Your task to perform on an android device: turn off priority inbox in the gmail app Image 0: 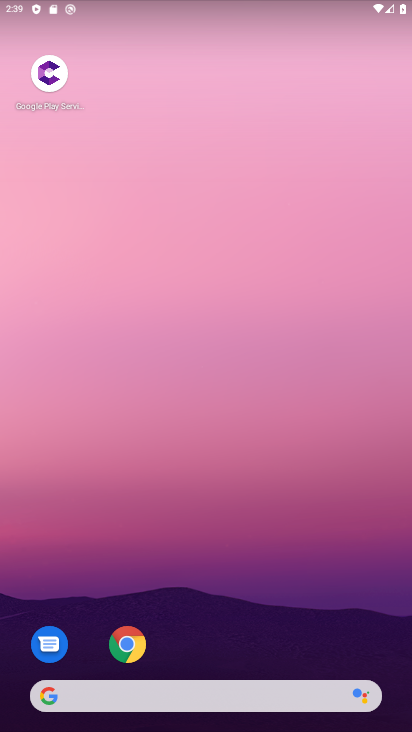
Step 0: drag from (248, 480) to (290, 153)
Your task to perform on an android device: turn off priority inbox in the gmail app Image 1: 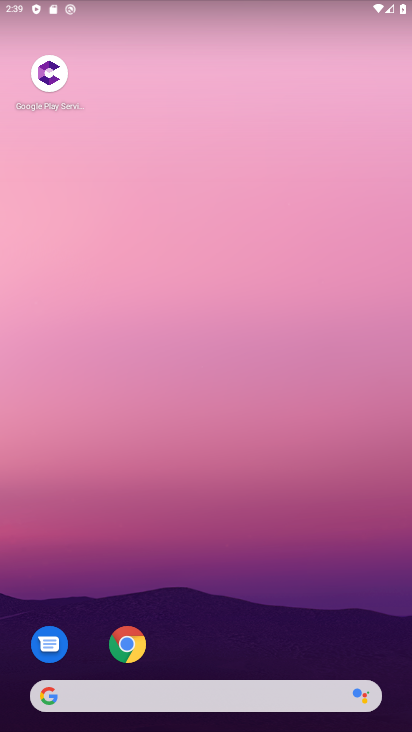
Step 1: drag from (204, 628) to (329, 40)
Your task to perform on an android device: turn off priority inbox in the gmail app Image 2: 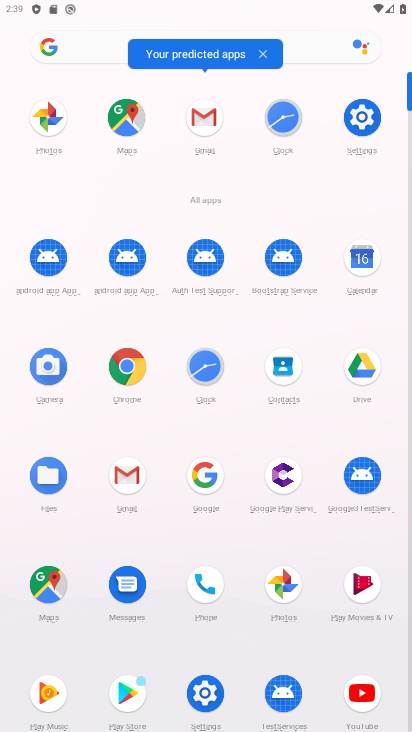
Step 2: drag from (158, 618) to (252, 393)
Your task to perform on an android device: turn off priority inbox in the gmail app Image 3: 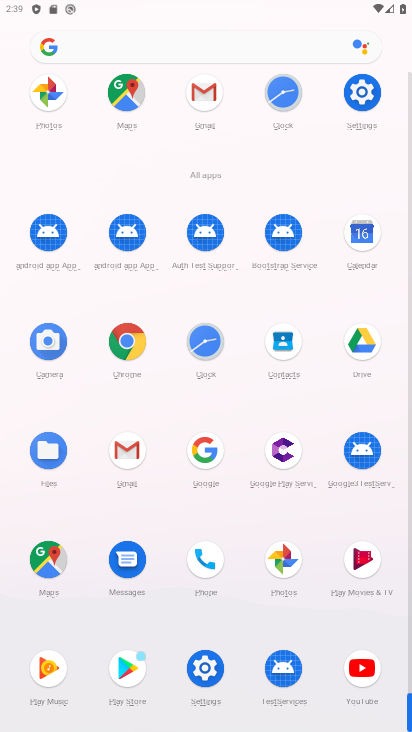
Step 3: click (133, 433)
Your task to perform on an android device: turn off priority inbox in the gmail app Image 4: 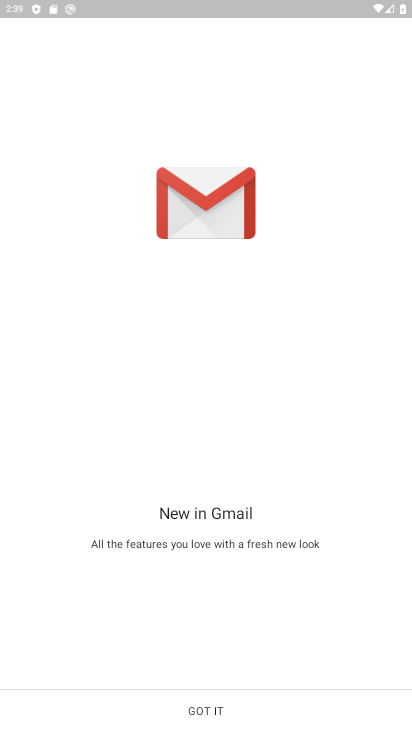
Step 4: click (237, 710)
Your task to perform on an android device: turn off priority inbox in the gmail app Image 5: 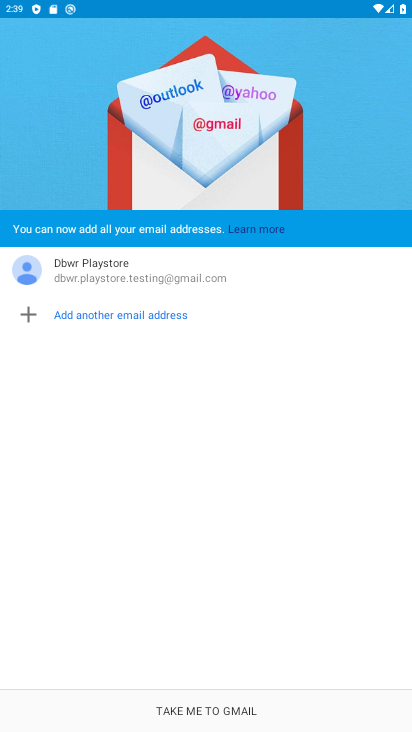
Step 5: click (236, 707)
Your task to perform on an android device: turn off priority inbox in the gmail app Image 6: 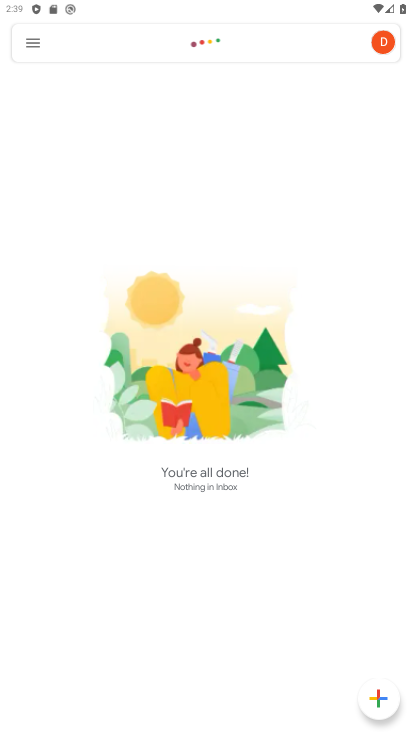
Step 6: click (38, 42)
Your task to perform on an android device: turn off priority inbox in the gmail app Image 7: 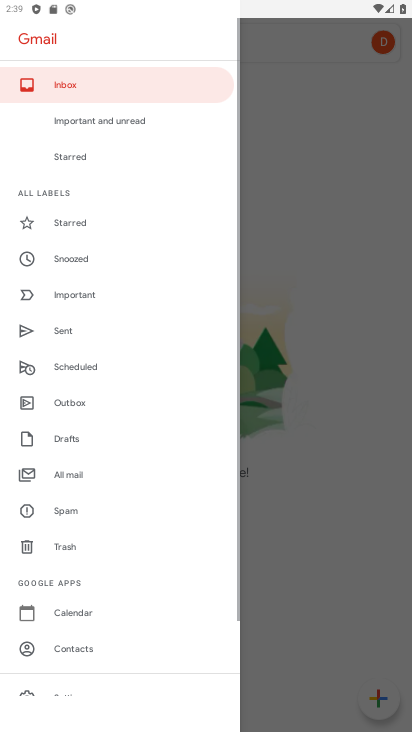
Step 7: drag from (130, 656) to (196, 377)
Your task to perform on an android device: turn off priority inbox in the gmail app Image 8: 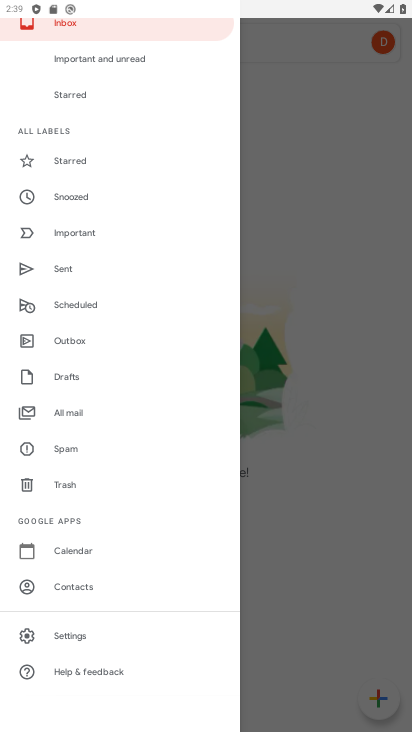
Step 8: click (94, 630)
Your task to perform on an android device: turn off priority inbox in the gmail app Image 9: 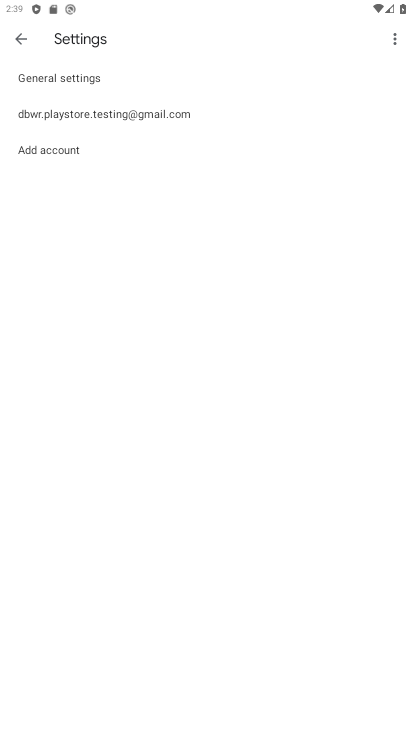
Step 9: click (219, 112)
Your task to perform on an android device: turn off priority inbox in the gmail app Image 10: 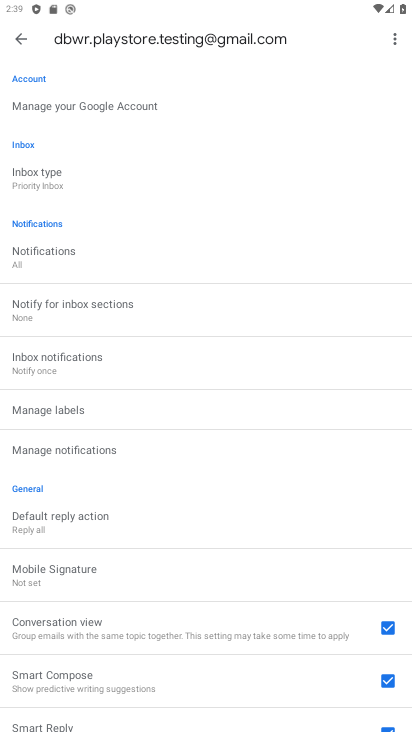
Step 10: click (107, 169)
Your task to perform on an android device: turn off priority inbox in the gmail app Image 11: 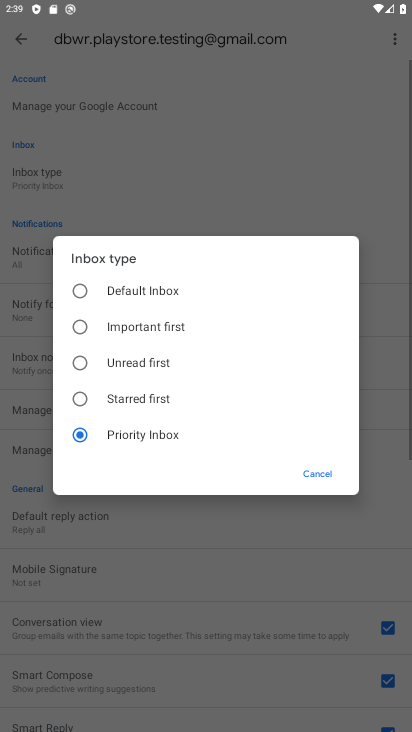
Step 11: click (153, 295)
Your task to perform on an android device: turn off priority inbox in the gmail app Image 12: 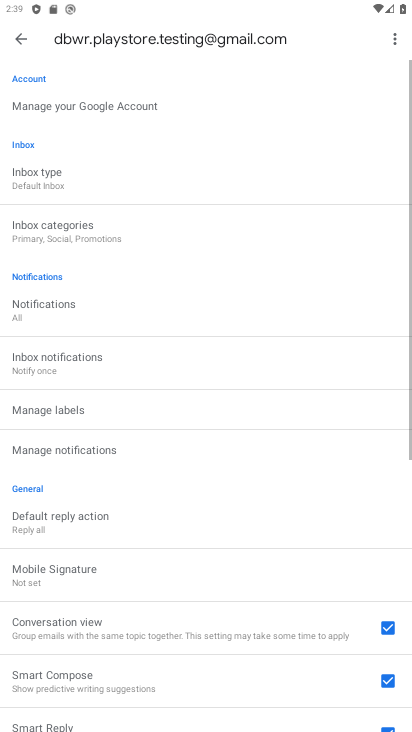
Step 12: task complete